Your task to perform on an android device: allow cookies in the chrome app Image 0: 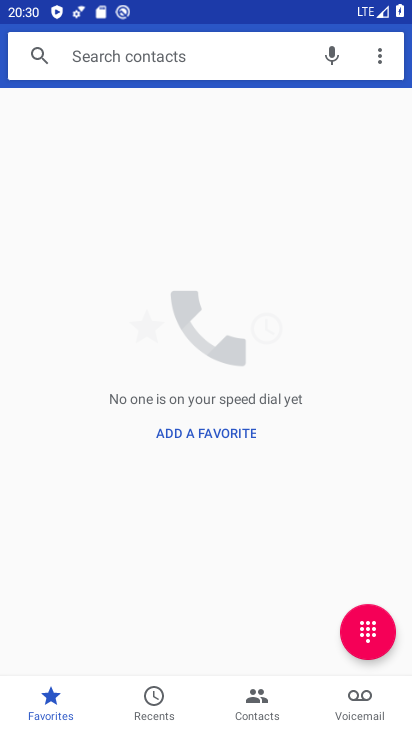
Step 0: press home button
Your task to perform on an android device: allow cookies in the chrome app Image 1: 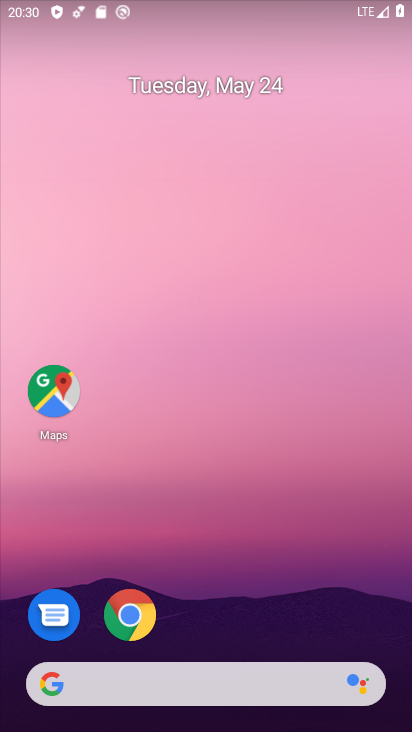
Step 1: drag from (247, 596) to (282, 162)
Your task to perform on an android device: allow cookies in the chrome app Image 2: 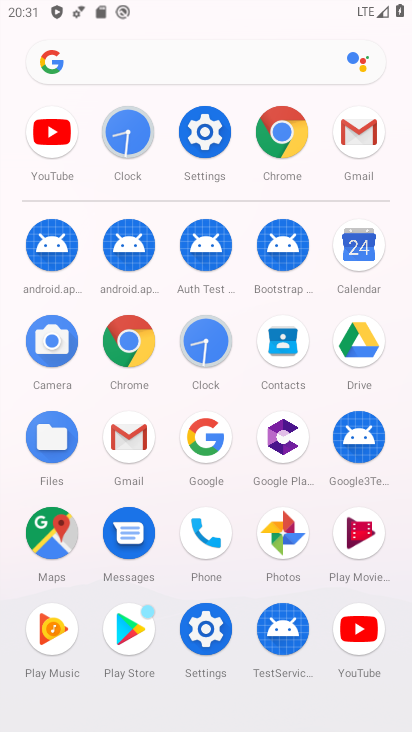
Step 2: click (276, 122)
Your task to perform on an android device: allow cookies in the chrome app Image 3: 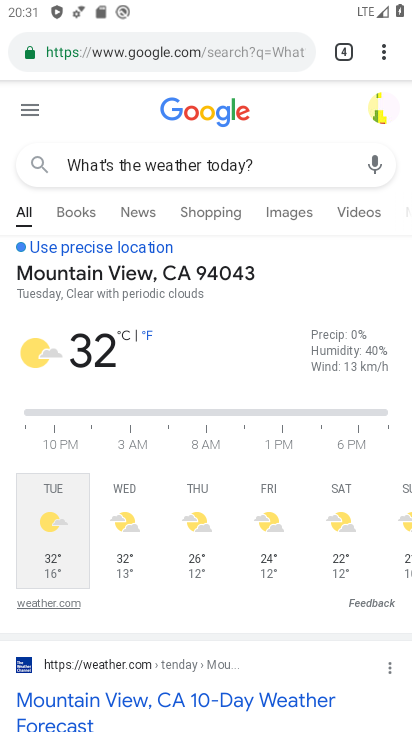
Step 3: click (379, 51)
Your task to perform on an android device: allow cookies in the chrome app Image 4: 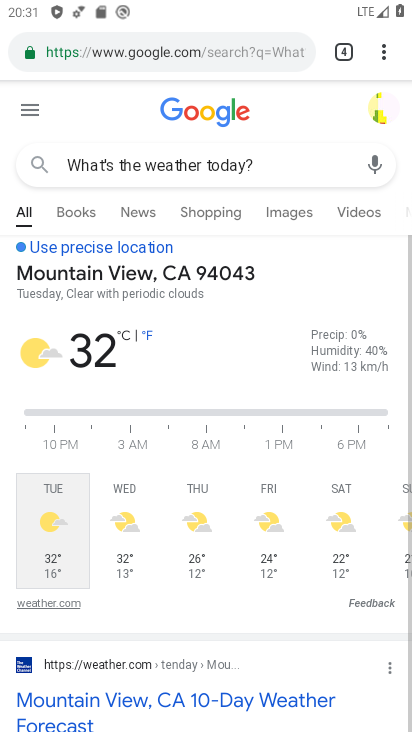
Step 4: click (373, 58)
Your task to perform on an android device: allow cookies in the chrome app Image 5: 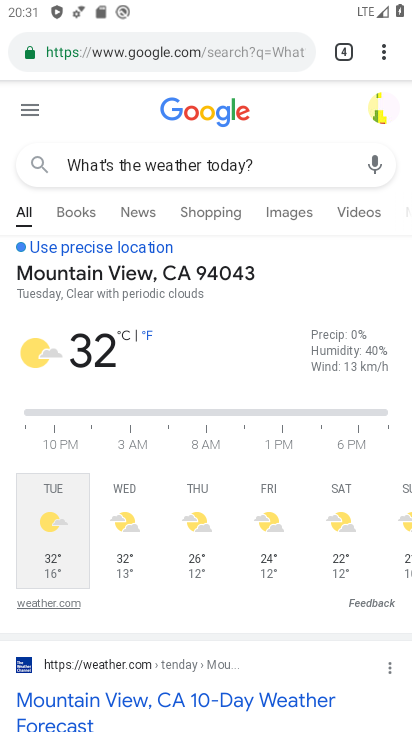
Step 5: click (393, 49)
Your task to perform on an android device: allow cookies in the chrome app Image 6: 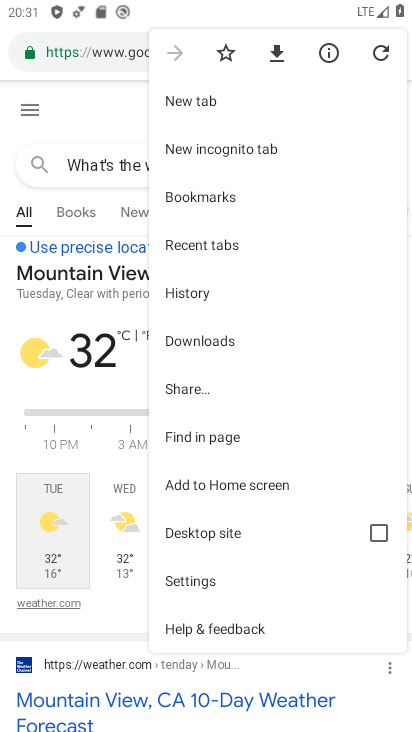
Step 6: click (212, 580)
Your task to perform on an android device: allow cookies in the chrome app Image 7: 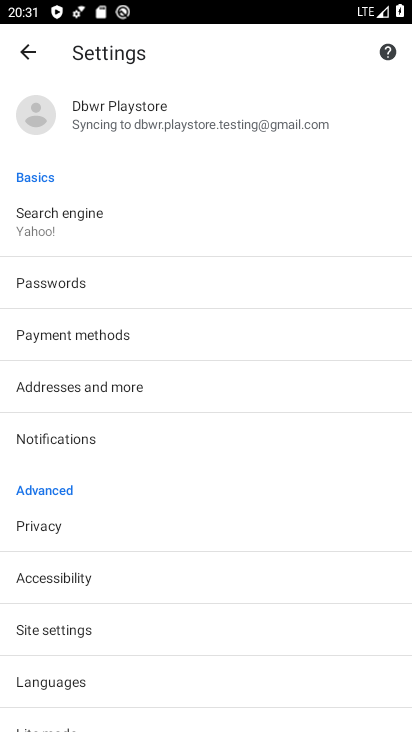
Step 7: drag from (180, 599) to (217, 351)
Your task to perform on an android device: allow cookies in the chrome app Image 8: 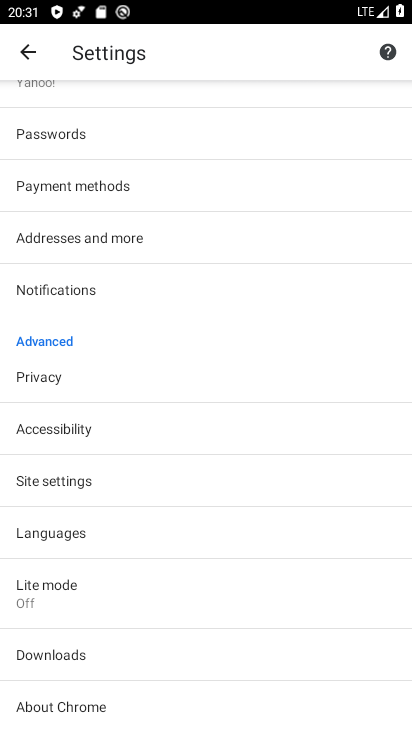
Step 8: drag from (309, 154) to (288, 339)
Your task to perform on an android device: allow cookies in the chrome app Image 9: 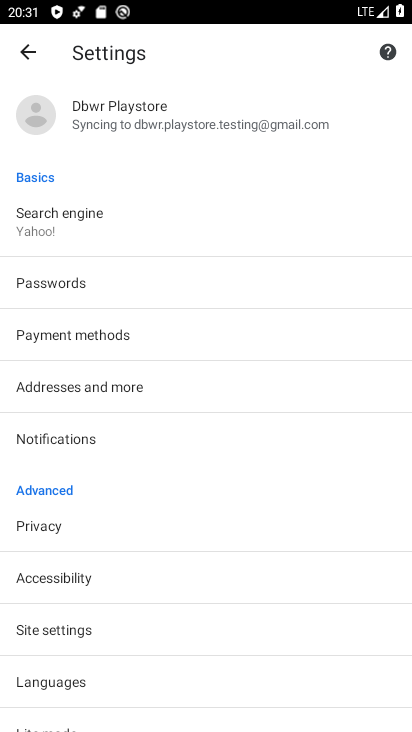
Step 9: drag from (143, 596) to (223, 235)
Your task to perform on an android device: allow cookies in the chrome app Image 10: 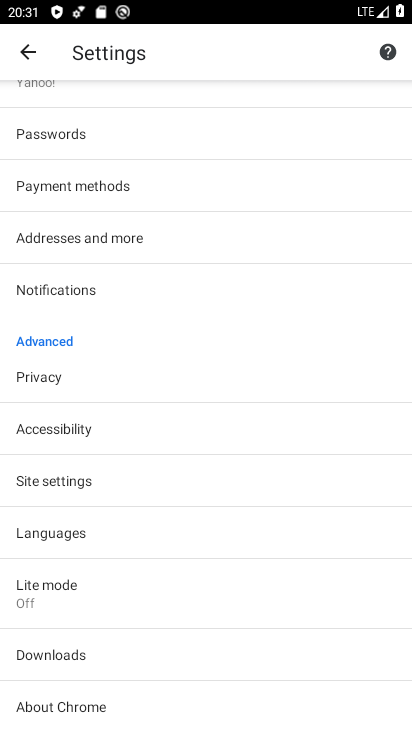
Step 10: drag from (157, 575) to (283, 121)
Your task to perform on an android device: allow cookies in the chrome app Image 11: 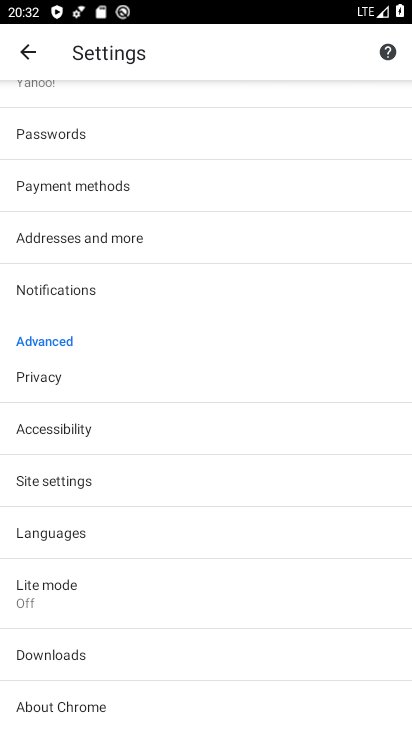
Step 11: click (111, 482)
Your task to perform on an android device: allow cookies in the chrome app Image 12: 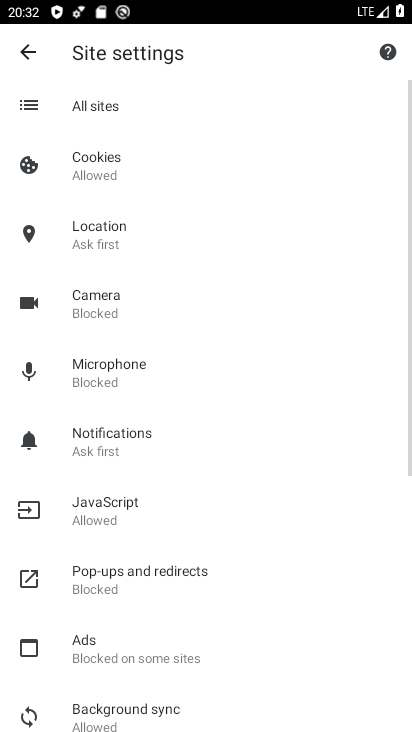
Step 12: click (145, 154)
Your task to perform on an android device: allow cookies in the chrome app Image 13: 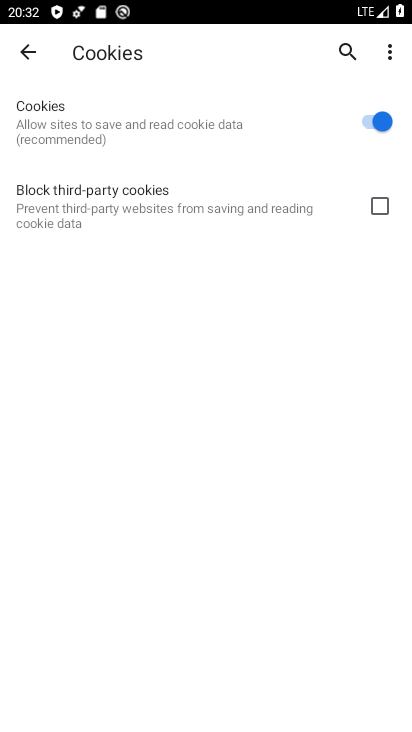
Step 13: task complete